Your task to perform on an android device: Search for vegetarian restaurants on Maps Image 0: 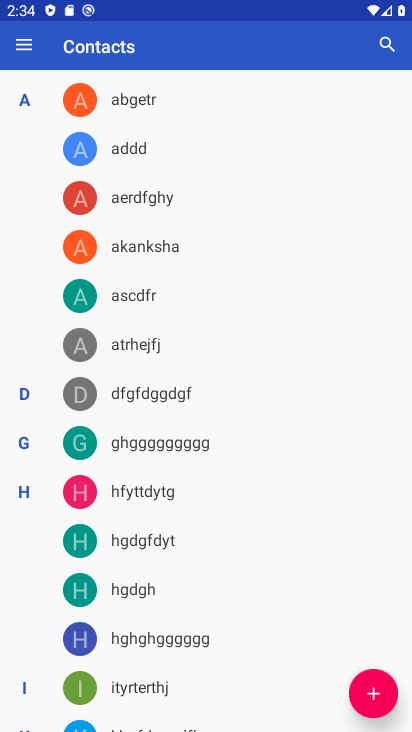
Step 0: press home button
Your task to perform on an android device: Search for vegetarian restaurants on Maps Image 1: 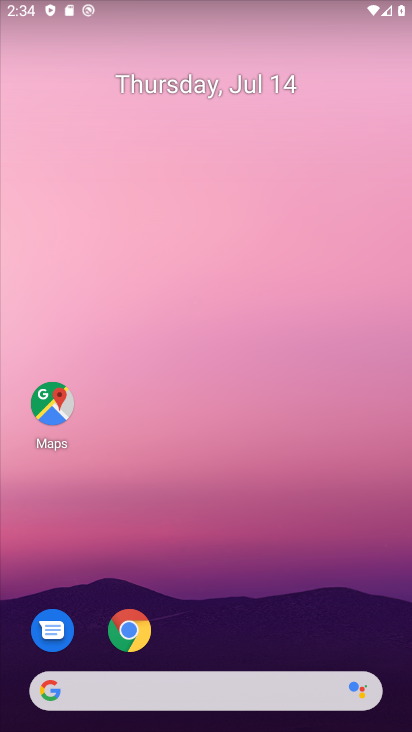
Step 1: click (50, 401)
Your task to perform on an android device: Search for vegetarian restaurants on Maps Image 2: 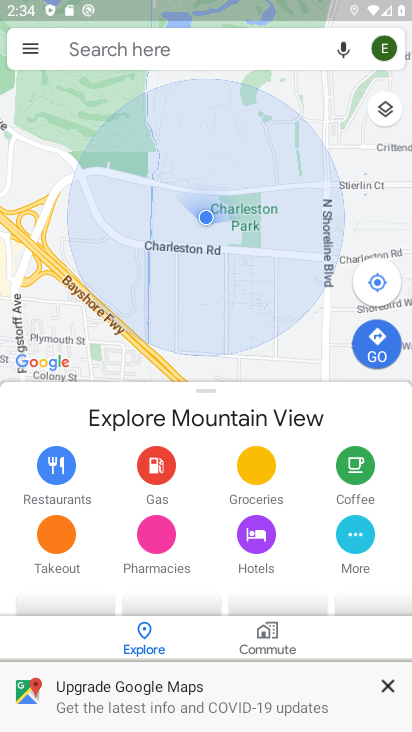
Step 2: click (108, 48)
Your task to perform on an android device: Search for vegetarian restaurants on Maps Image 3: 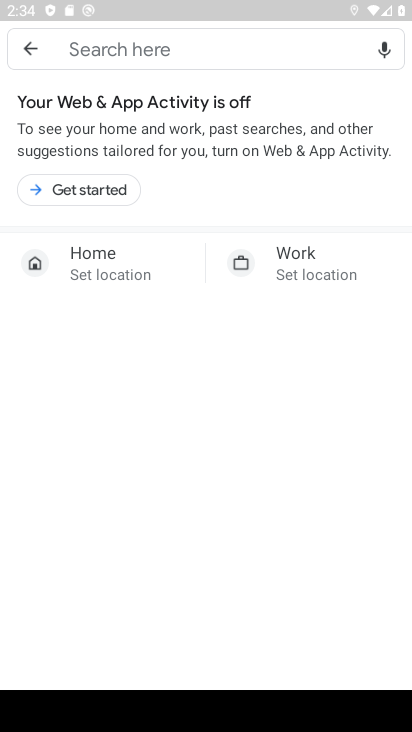
Step 3: type "vegetarian"
Your task to perform on an android device: Search for vegetarian restaurants on Maps Image 4: 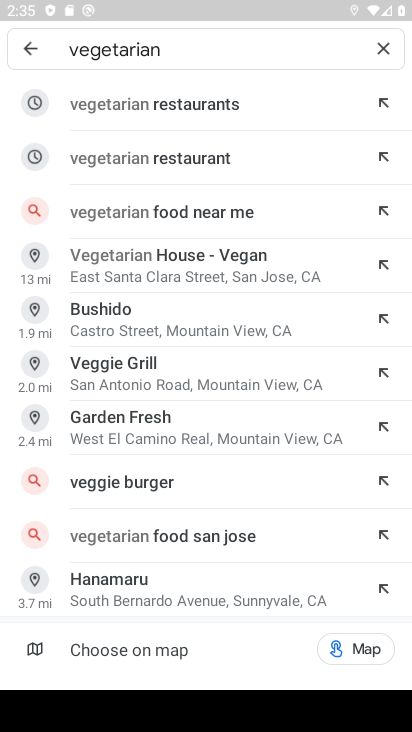
Step 4: click (232, 101)
Your task to perform on an android device: Search for vegetarian restaurants on Maps Image 5: 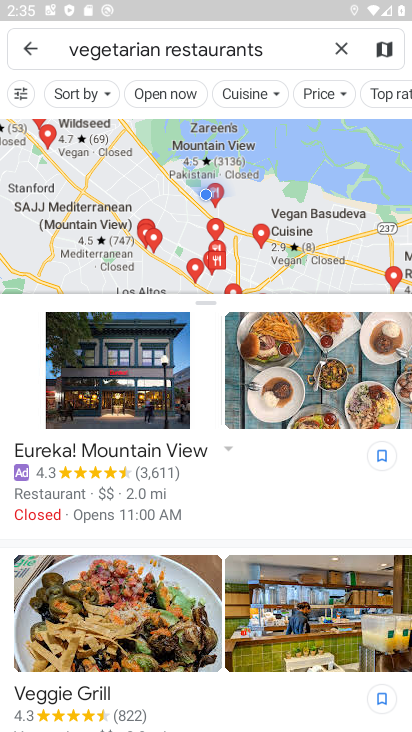
Step 5: task complete